Your task to perform on an android device: turn on showing notifications on the lock screen Image 0: 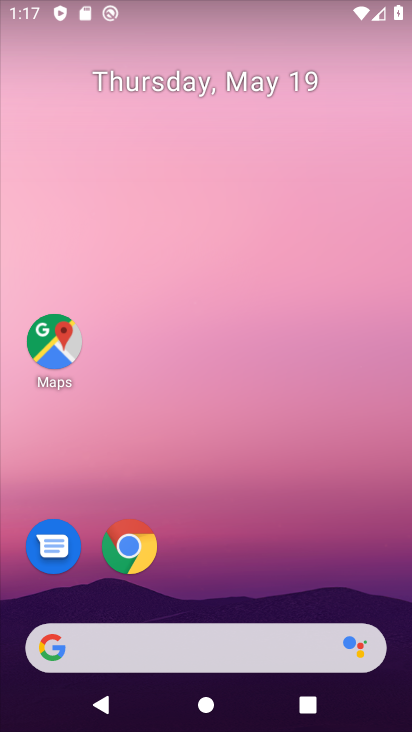
Step 0: drag from (194, 545) to (312, 206)
Your task to perform on an android device: turn on showing notifications on the lock screen Image 1: 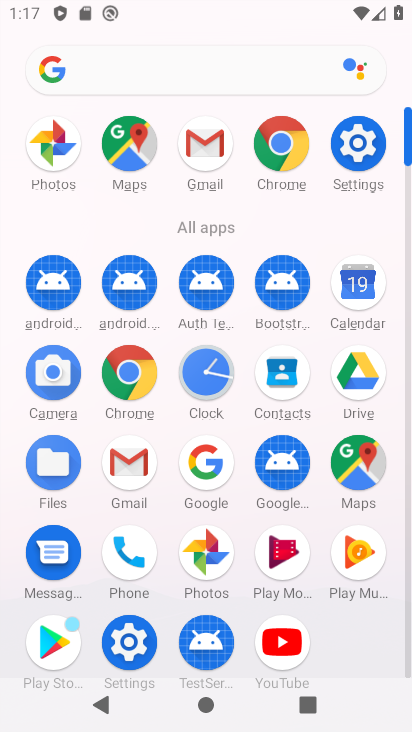
Step 1: click (138, 638)
Your task to perform on an android device: turn on showing notifications on the lock screen Image 2: 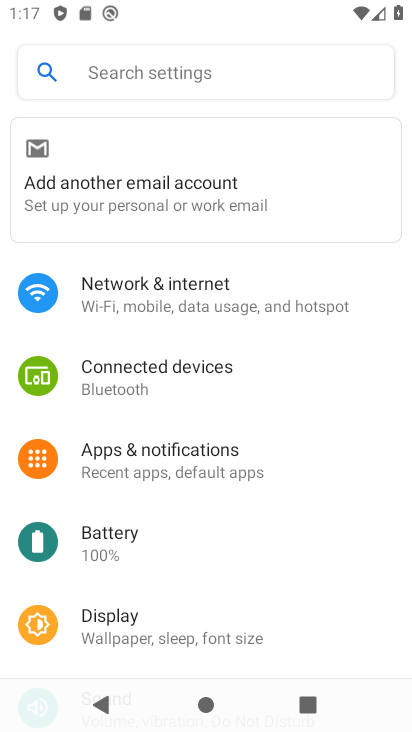
Step 2: click (187, 470)
Your task to perform on an android device: turn on showing notifications on the lock screen Image 3: 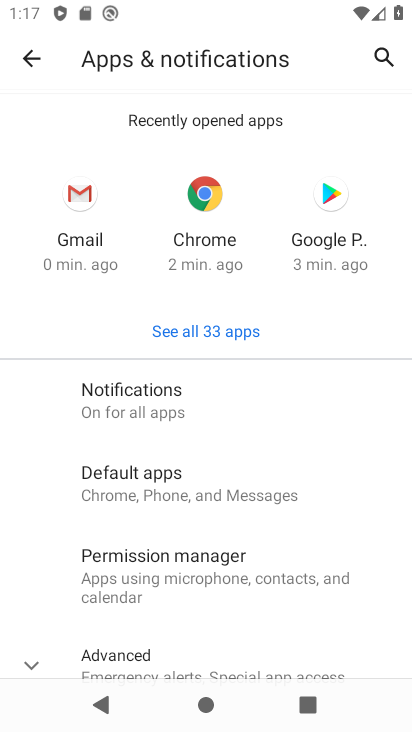
Step 3: click (208, 412)
Your task to perform on an android device: turn on showing notifications on the lock screen Image 4: 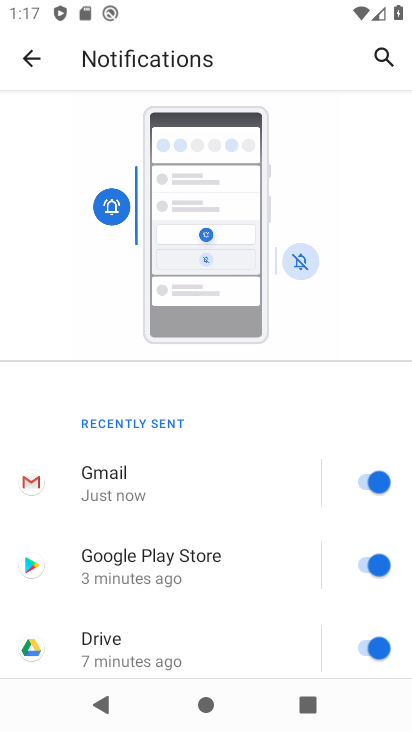
Step 4: drag from (159, 582) to (205, 348)
Your task to perform on an android device: turn on showing notifications on the lock screen Image 5: 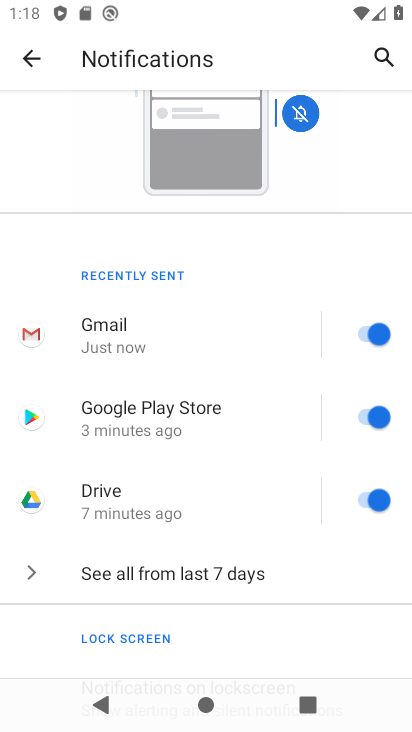
Step 5: drag from (211, 622) to (300, 389)
Your task to perform on an android device: turn on showing notifications on the lock screen Image 6: 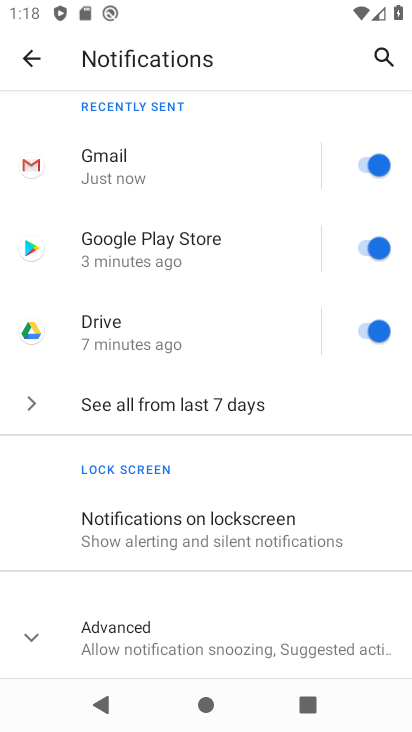
Step 6: click (176, 520)
Your task to perform on an android device: turn on showing notifications on the lock screen Image 7: 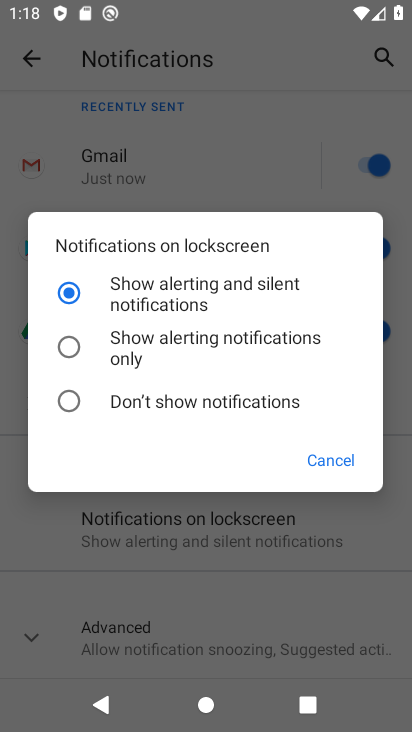
Step 7: task complete